Your task to perform on an android device: allow cookies in the chrome app Image 0: 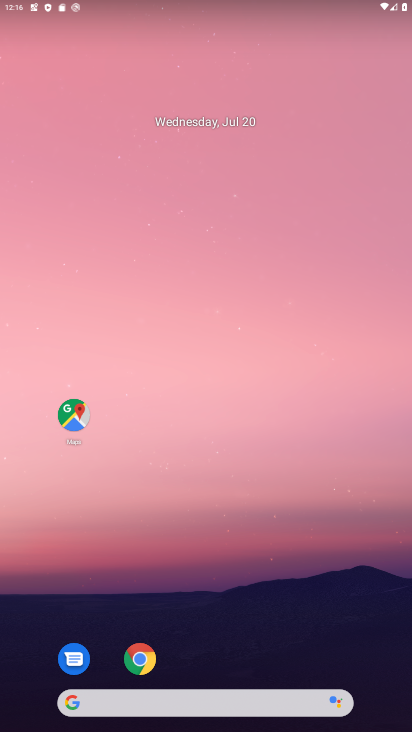
Step 0: click (136, 664)
Your task to perform on an android device: allow cookies in the chrome app Image 1: 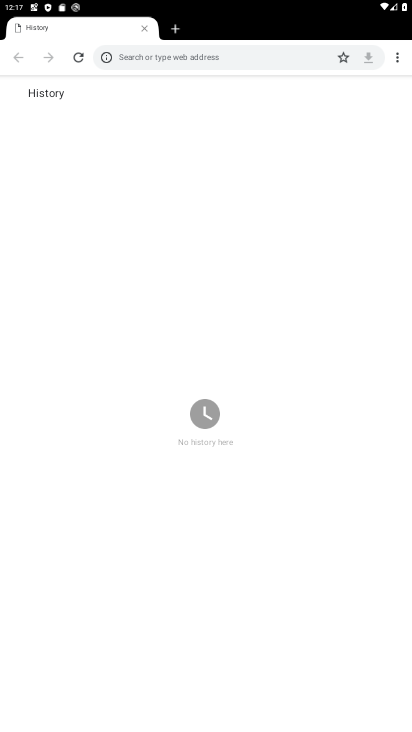
Step 1: click (396, 60)
Your task to perform on an android device: allow cookies in the chrome app Image 2: 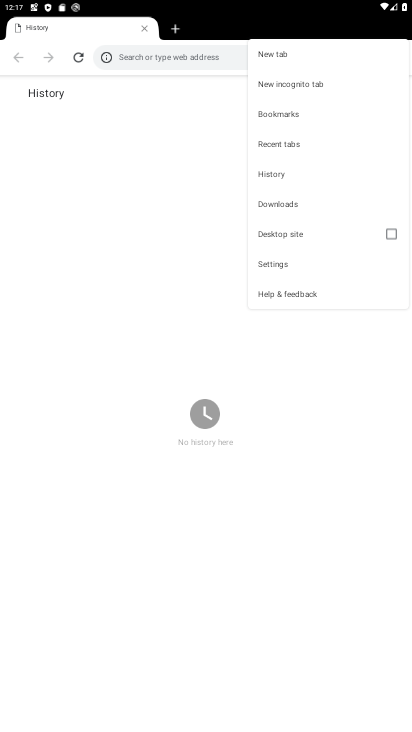
Step 2: click (278, 267)
Your task to perform on an android device: allow cookies in the chrome app Image 3: 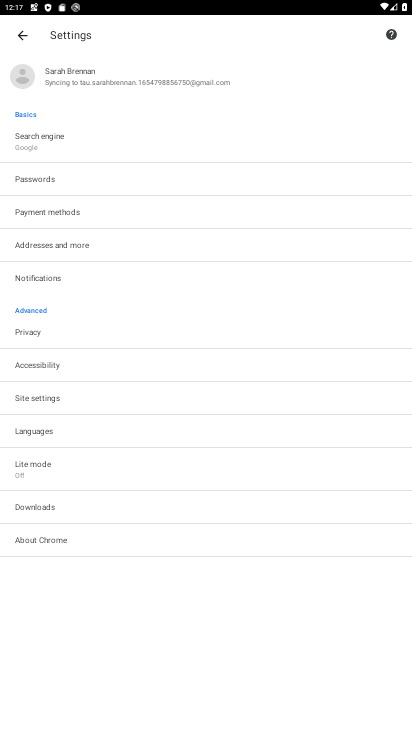
Step 3: click (23, 394)
Your task to perform on an android device: allow cookies in the chrome app Image 4: 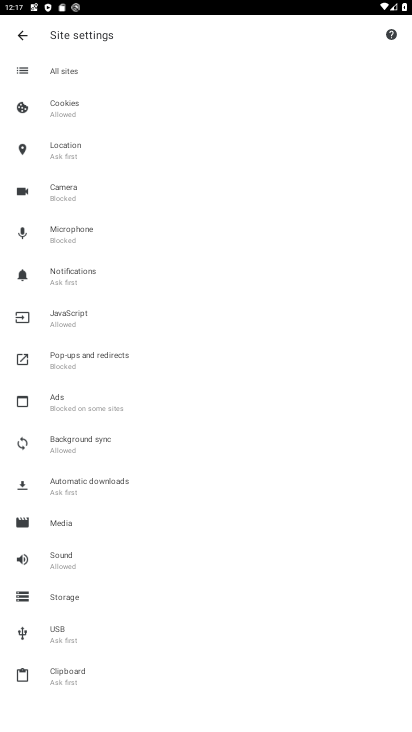
Step 4: click (106, 110)
Your task to perform on an android device: allow cookies in the chrome app Image 5: 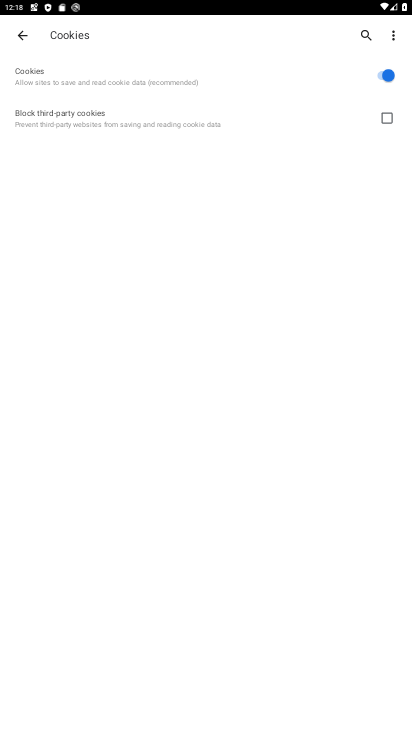
Step 5: task complete